Your task to perform on an android device: Open Google Chrome and open the bookmarks view Image 0: 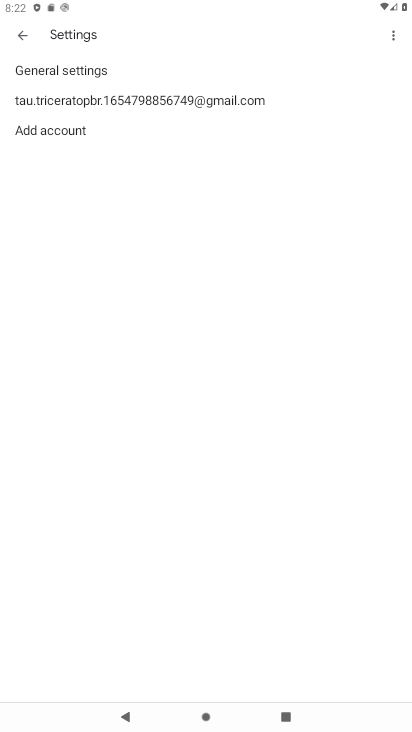
Step 0: press home button
Your task to perform on an android device: Open Google Chrome and open the bookmarks view Image 1: 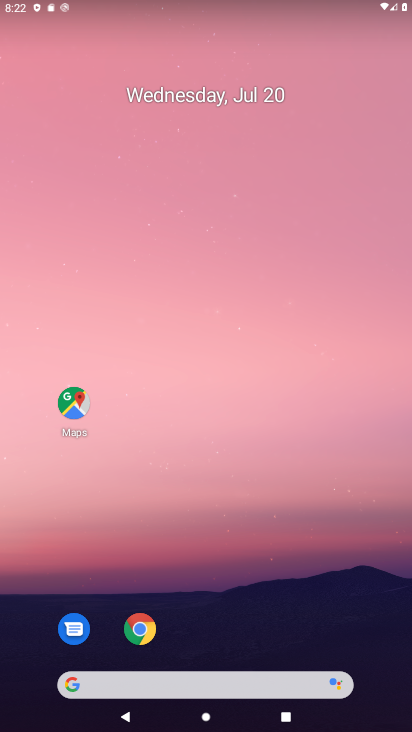
Step 1: click (139, 633)
Your task to perform on an android device: Open Google Chrome and open the bookmarks view Image 2: 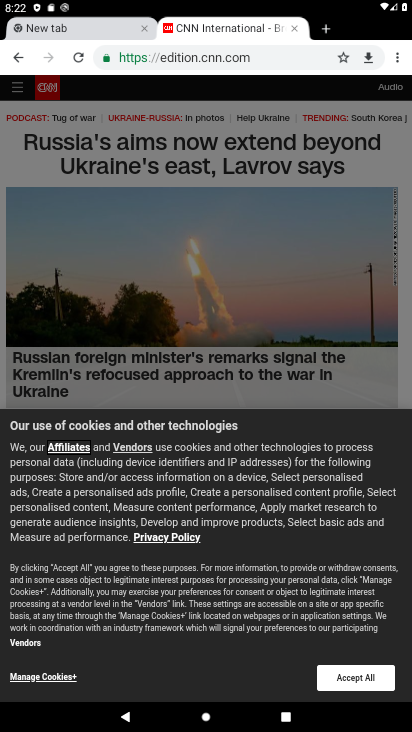
Step 2: click (402, 55)
Your task to perform on an android device: Open Google Chrome and open the bookmarks view Image 3: 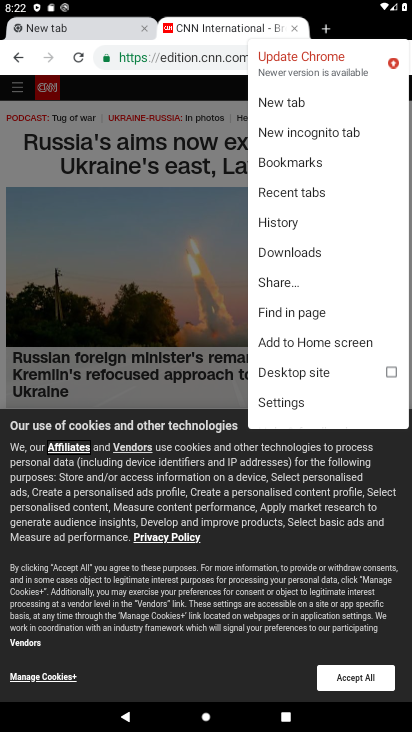
Step 3: click (303, 156)
Your task to perform on an android device: Open Google Chrome and open the bookmarks view Image 4: 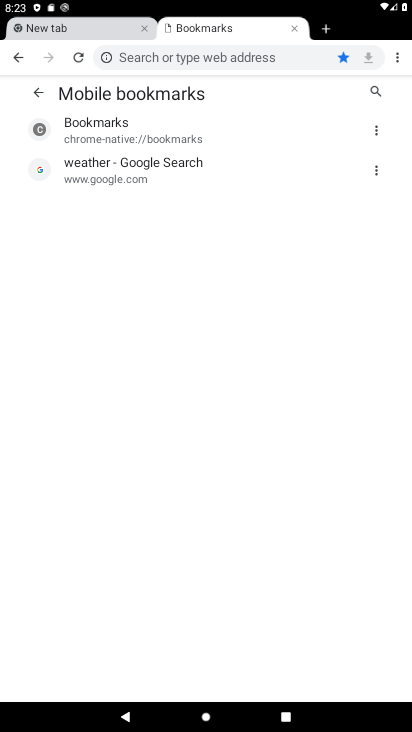
Step 4: task complete